Your task to perform on an android device: Open the map Image 0: 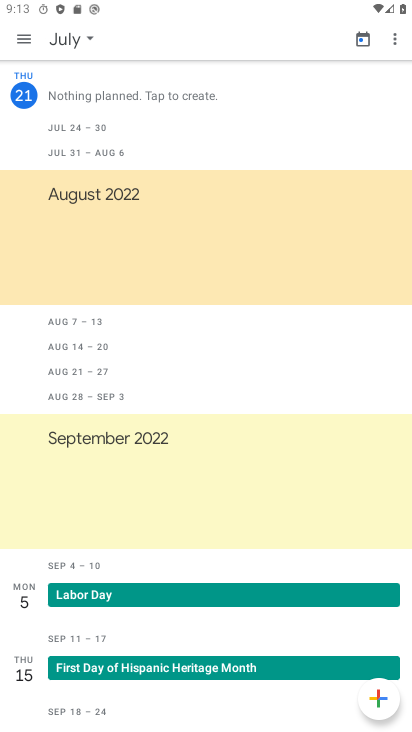
Step 0: drag from (281, 656) to (262, 396)
Your task to perform on an android device: Open the map Image 1: 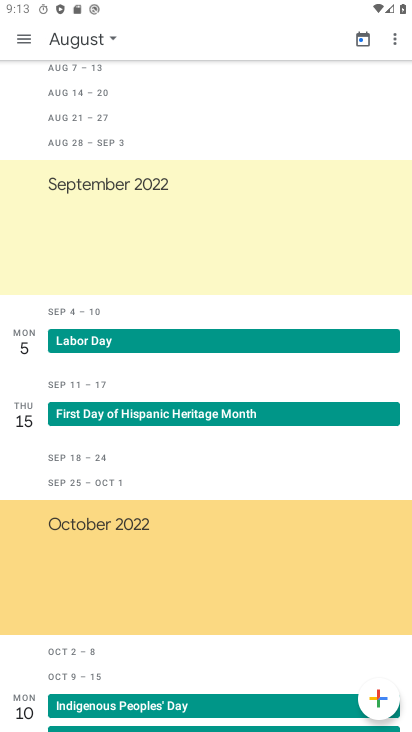
Step 1: press back button
Your task to perform on an android device: Open the map Image 2: 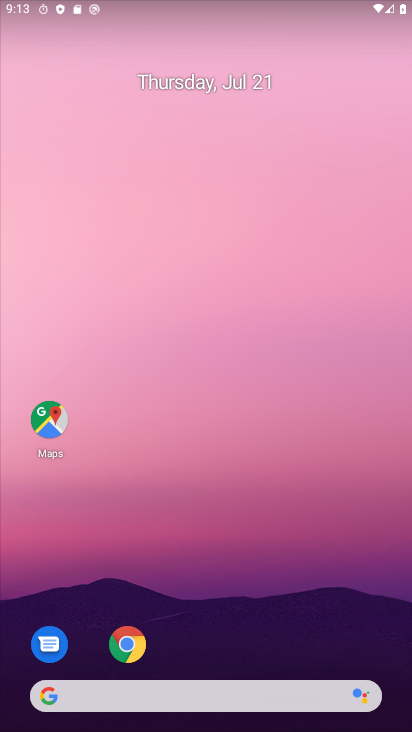
Step 2: drag from (205, 634) to (237, 182)
Your task to perform on an android device: Open the map Image 3: 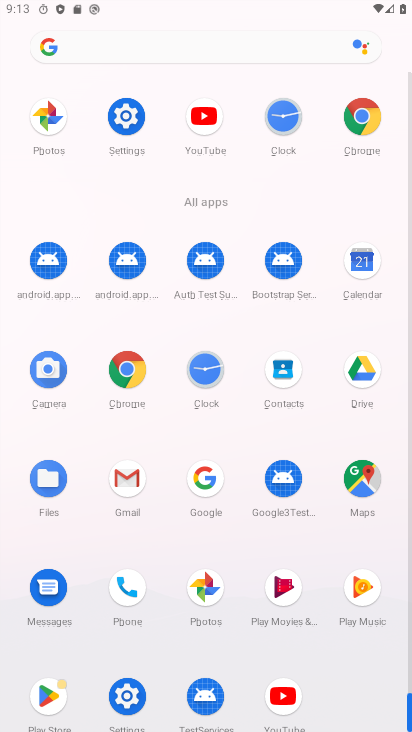
Step 3: click (368, 478)
Your task to perform on an android device: Open the map Image 4: 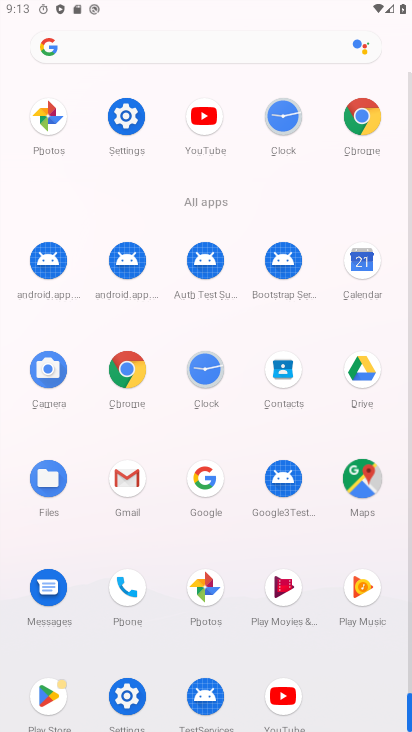
Step 4: click (369, 479)
Your task to perform on an android device: Open the map Image 5: 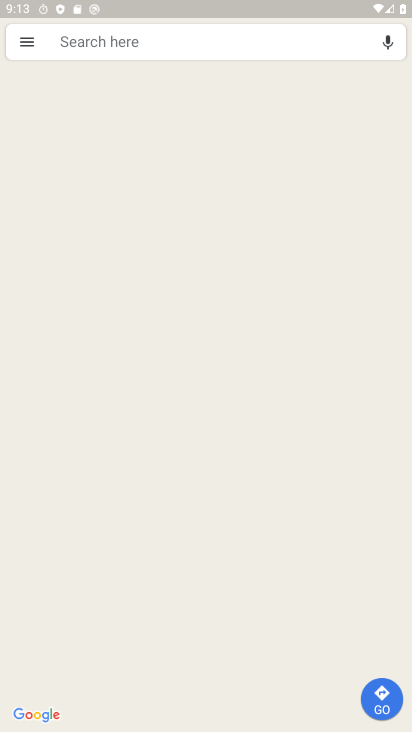
Step 5: click (234, 340)
Your task to perform on an android device: Open the map Image 6: 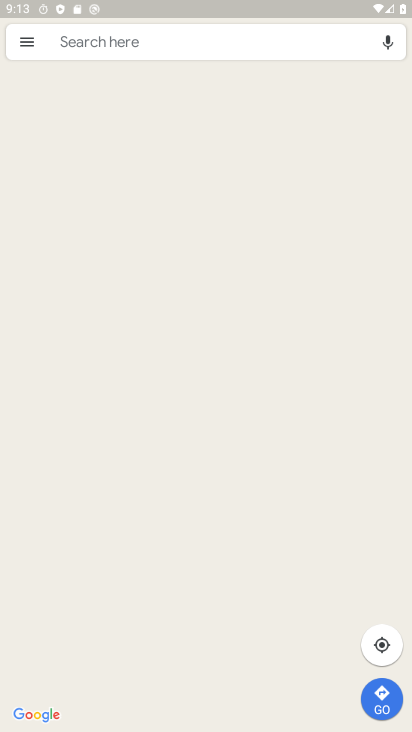
Step 6: click (232, 341)
Your task to perform on an android device: Open the map Image 7: 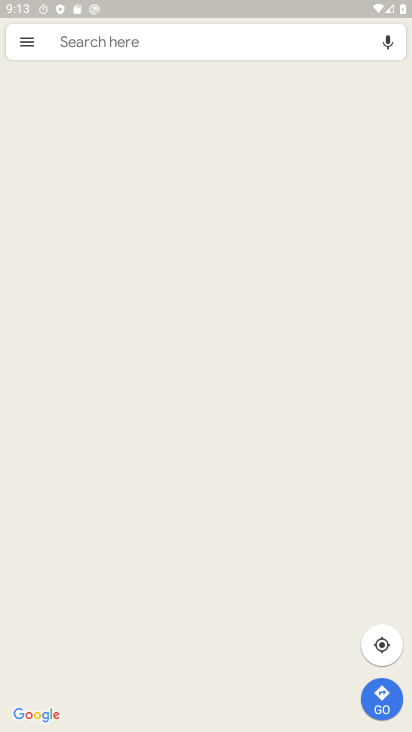
Step 7: click (230, 342)
Your task to perform on an android device: Open the map Image 8: 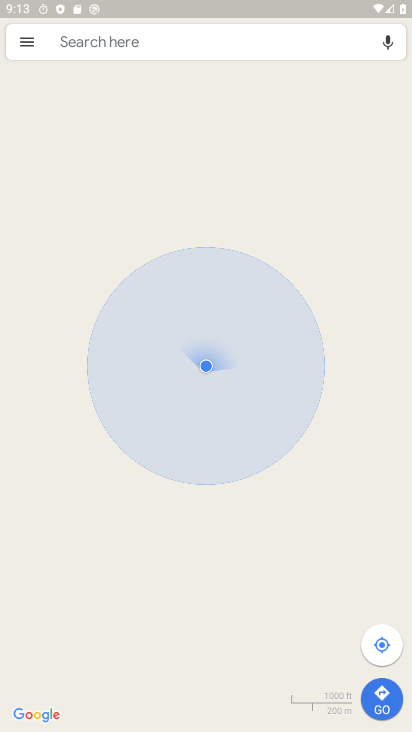
Step 8: task complete